Your task to perform on an android device: Open CNN.com Image 0: 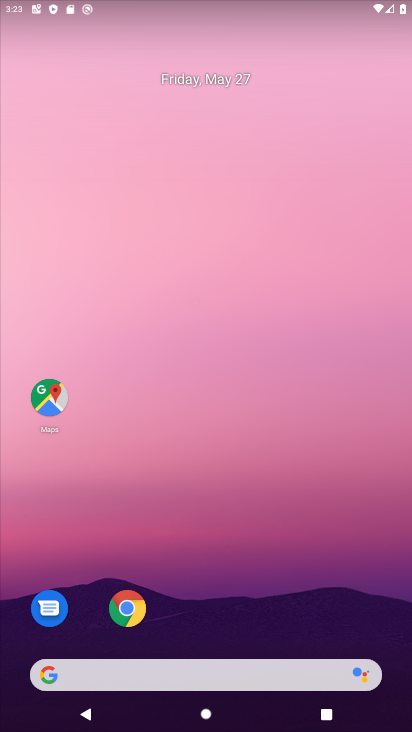
Step 0: drag from (177, 654) to (229, 219)
Your task to perform on an android device: Open CNN.com Image 1: 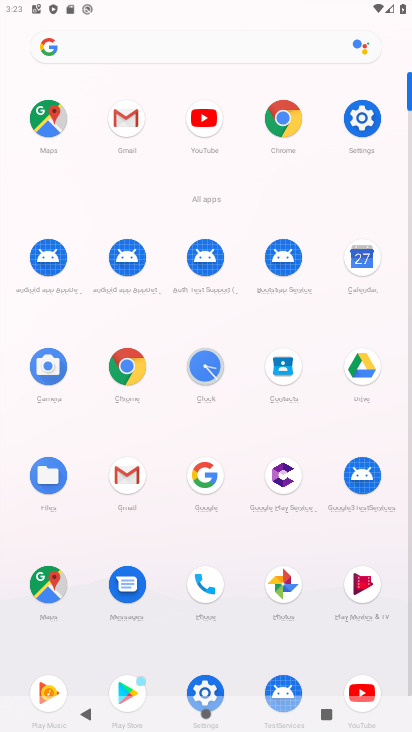
Step 1: click (193, 476)
Your task to perform on an android device: Open CNN.com Image 2: 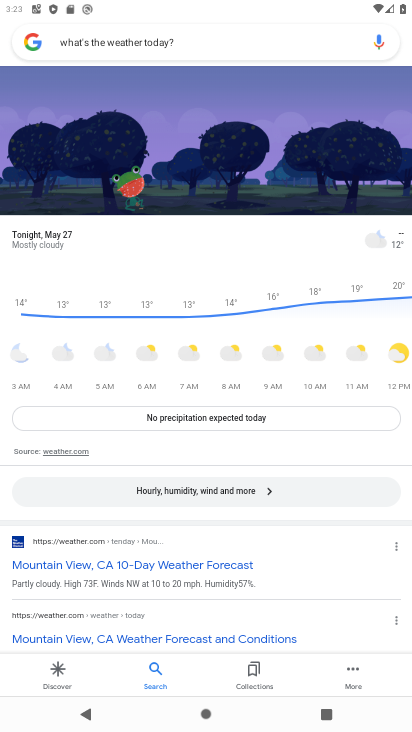
Step 2: click (217, 28)
Your task to perform on an android device: Open CNN.com Image 3: 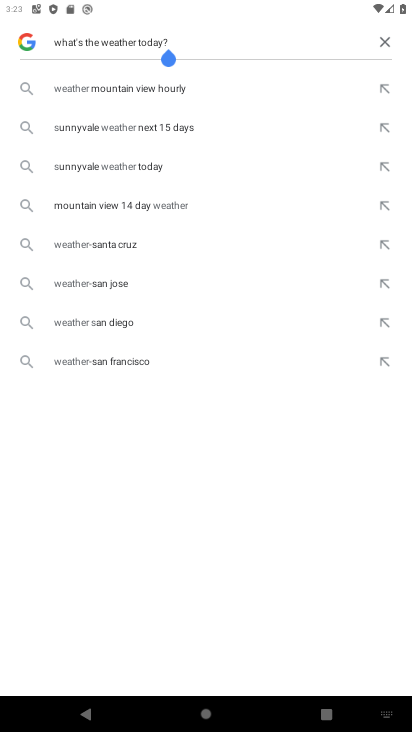
Step 3: click (391, 39)
Your task to perform on an android device: Open CNN.com Image 4: 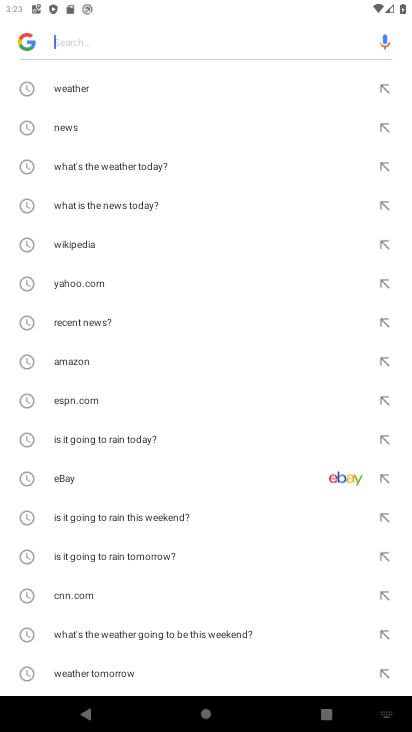
Step 4: click (81, 603)
Your task to perform on an android device: Open CNN.com Image 5: 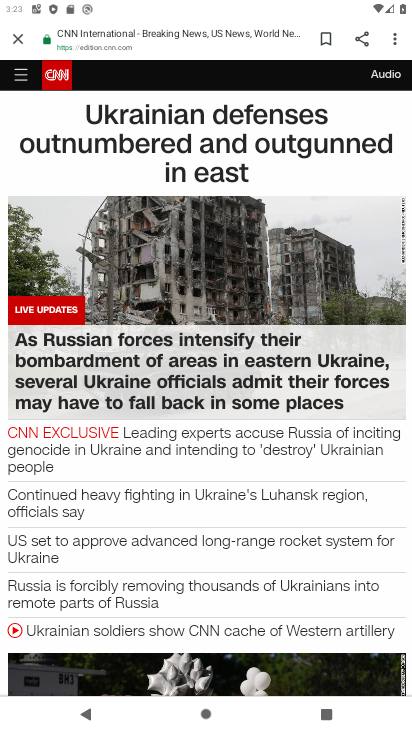
Step 5: task complete